Your task to perform on an android device: toggle pop-ups in chrome Image 0: 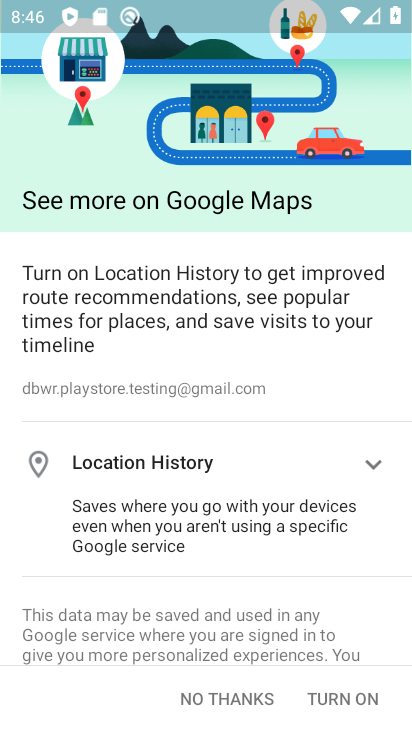
Step 0: press home button
Your task to perform on an android device: toggle pop-ups in chrome Image 1: 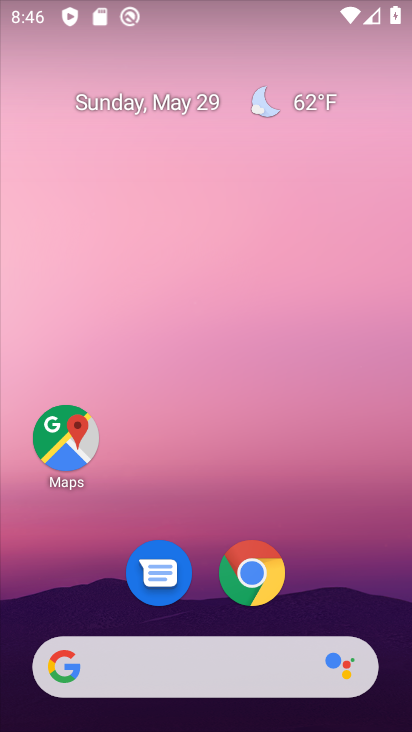
Step 1: click (246, 591)
Your task to perform on an android device: toggle pop-ups in chrome Image 2: 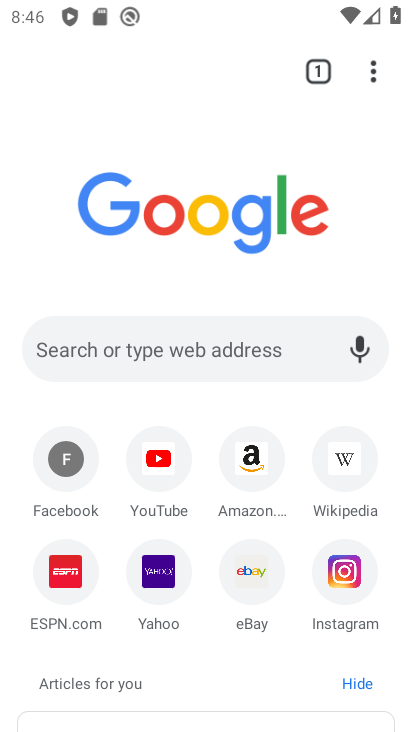
Step 2: click (374, 69)
Your task to perform on an android device: toggle pop-ups in chrome Image 3: 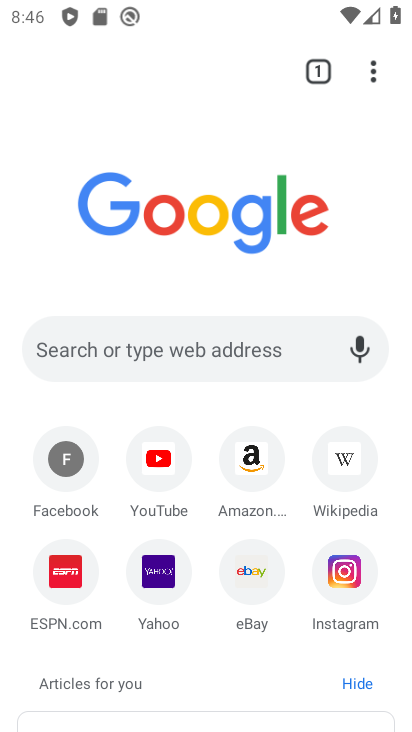
Step 3: drag from (374, 70) to (166, 607)
Your task to perform on an android device: toggle pop-ups in chrome Image 4: 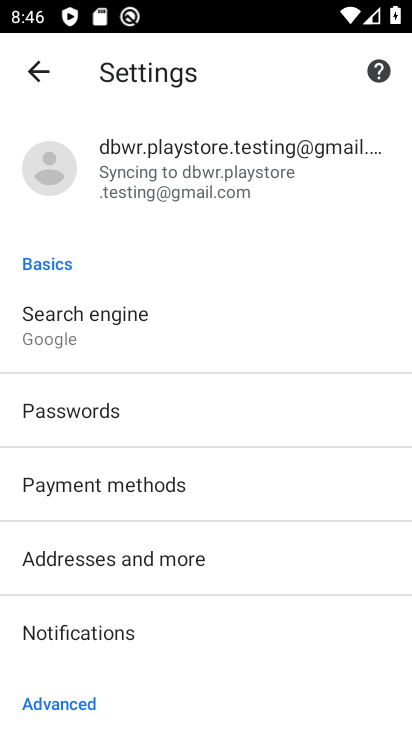
Step 4: drag from (274, 670) to (242, 307)
Your task to perform on an android device: toggle pop-ups in chrome Image 5: 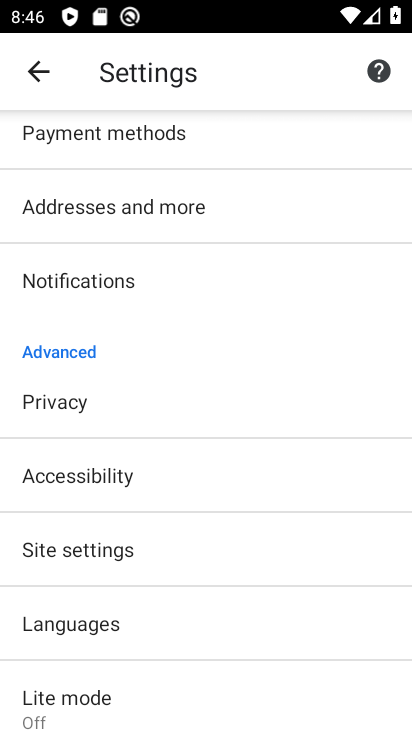
Step 5: click (140, 556)
Your task to perform on an android device: toggle pop-ups in chrome Image 6: 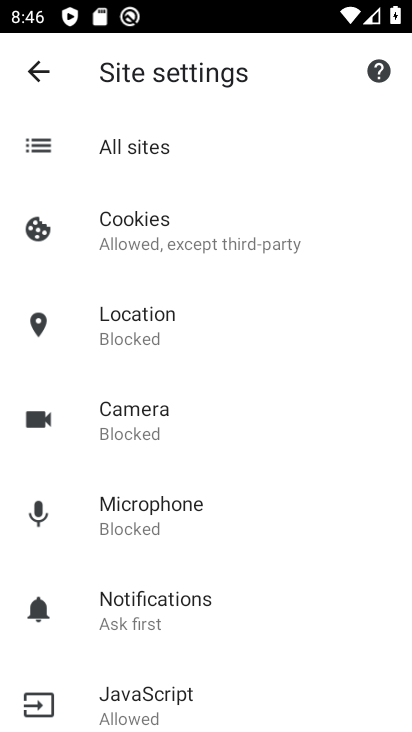
Step 6: drag from (334, 685) to (275, 394)
Your task to perform on an android device: toggle pop-ups in chrome Image 7: 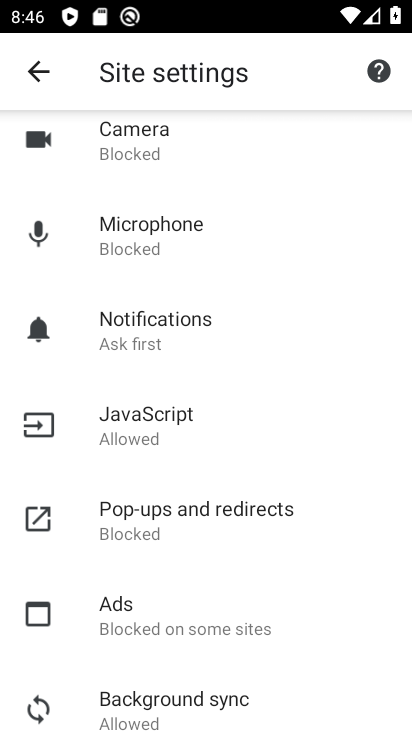
Step 7: click (142, 516)
Your task to perform on an android device: toggle pop-ups in chrome Image 8: 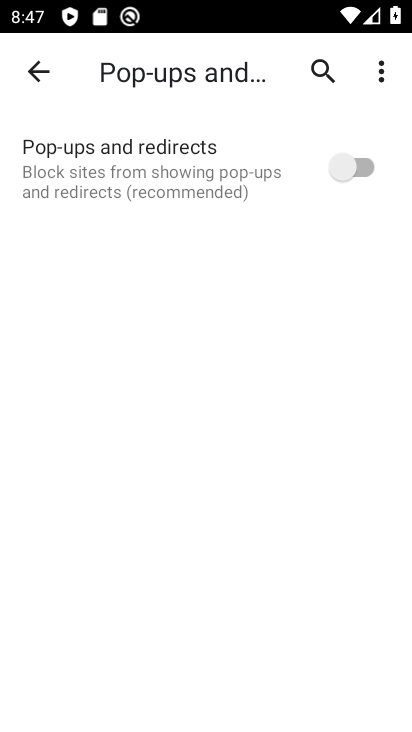
Step 8: click (355, 162)
Your task to perform on an android device: toggle pop-ups in chrome Image 9: 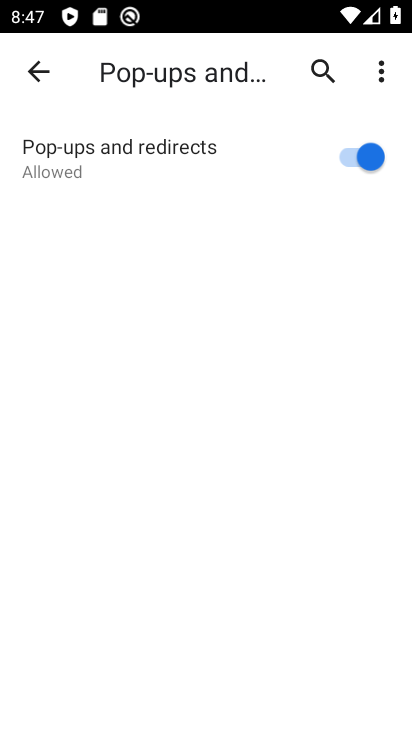
Step 9: task complete